Your task to perform on an android device: Open Chrome and go to settings Image 0: 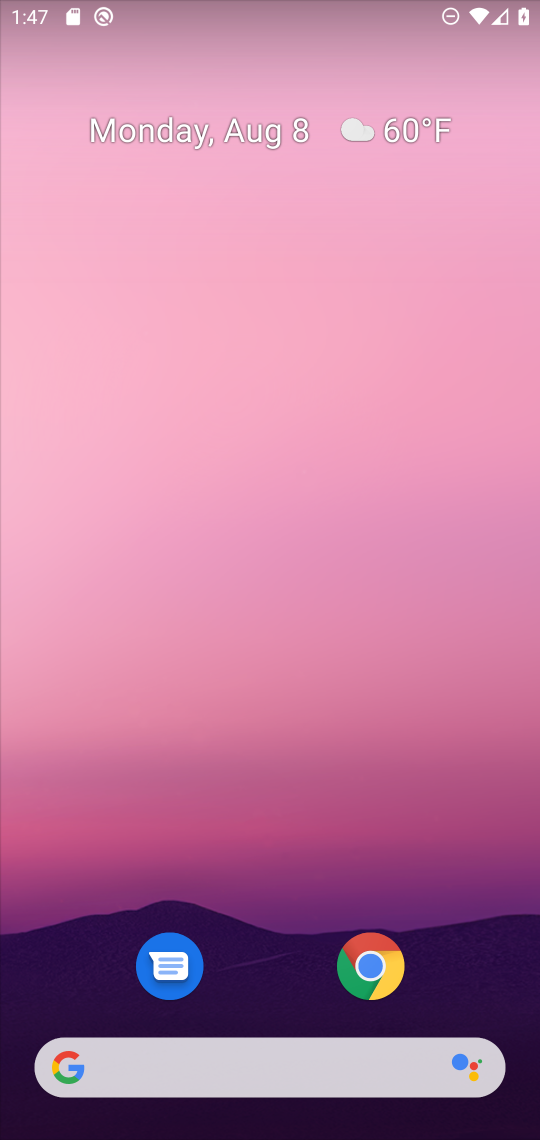
Step 0: click (389, 963)
Your task to perform on an android device: Open Chrome and go to settings Image 1: 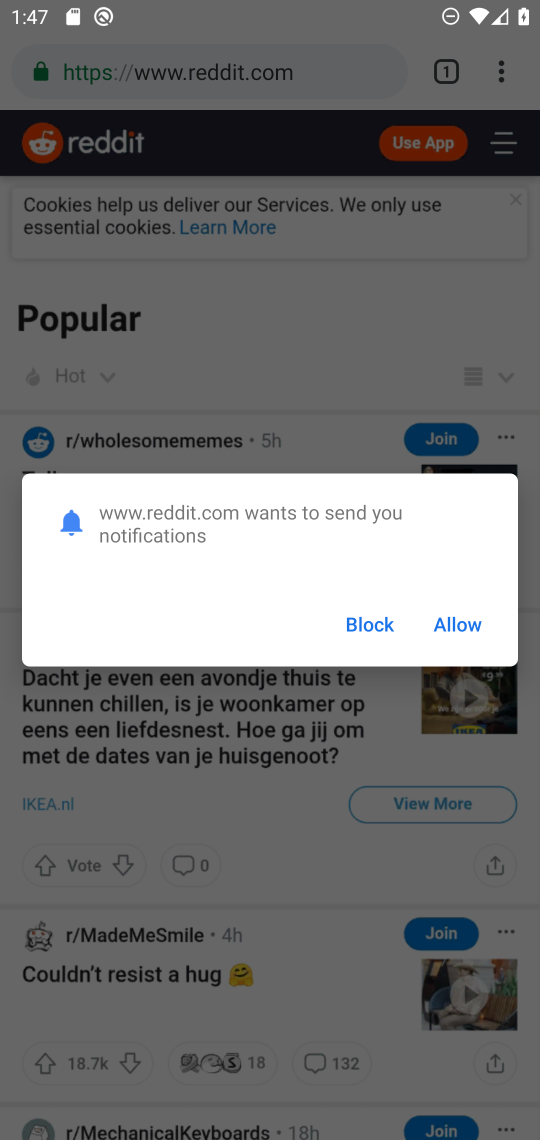
Step 1: click (514, 164)
Your task to perform on an android device: Open Chrome and go to settings Image 2: 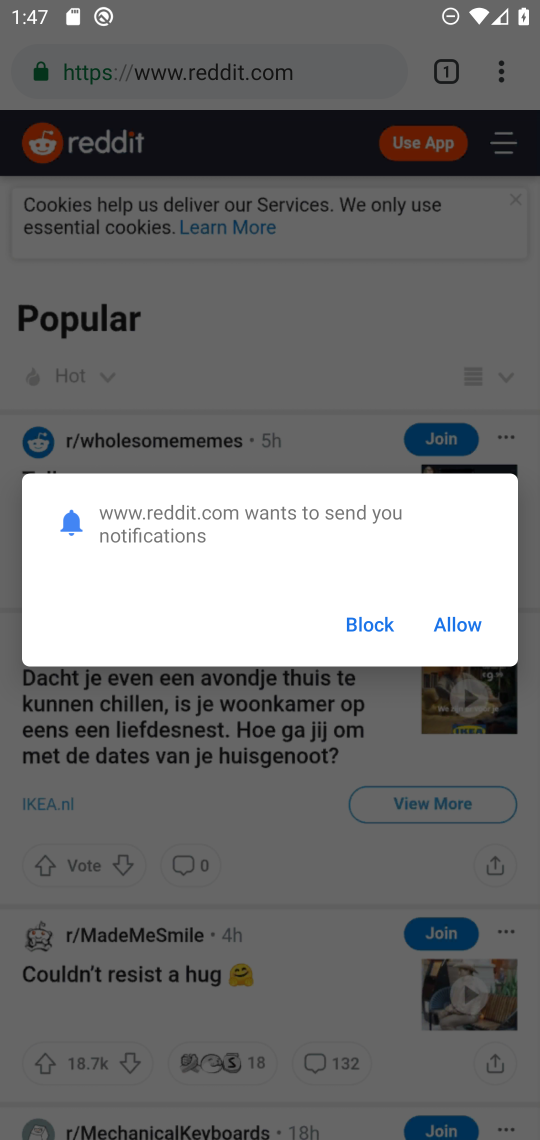
Step 2: click (469, 605)
Your task to perform on an android device: Open Chrome and go to settings Image 3: 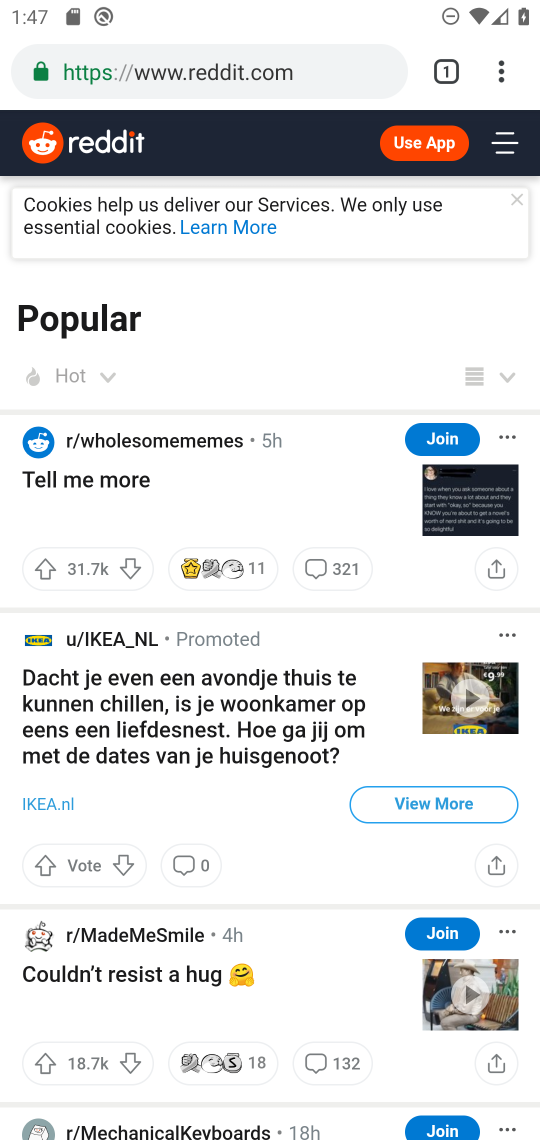
Step 3: click (494, 67)
Your task to perform on an android device: Open Chrome and go to settings Image 4: 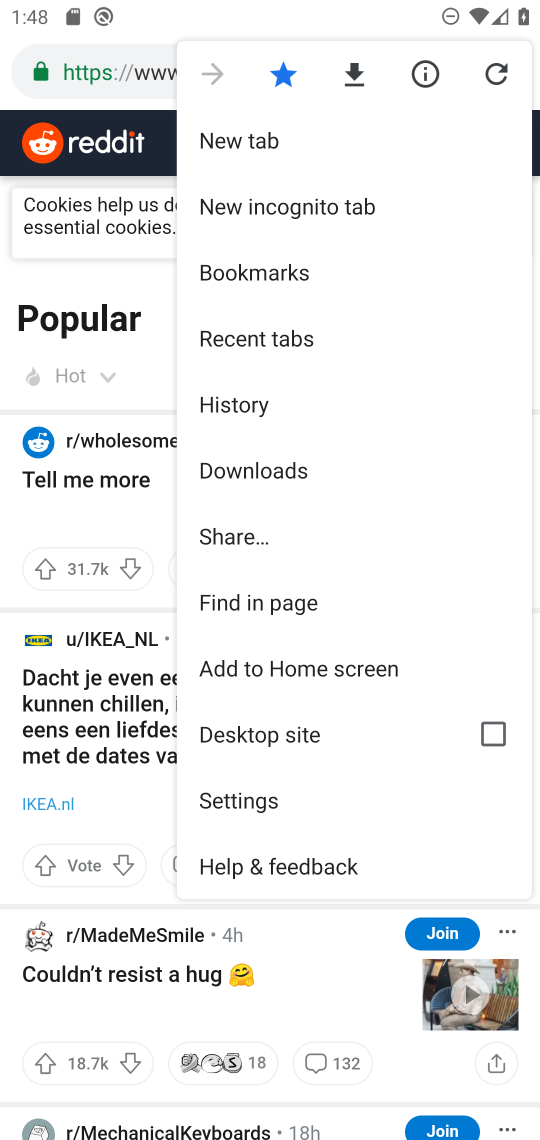
Step 4: click (283, 795)
Your task to perform on an android device: Open Chrome and go to settings Image 5: 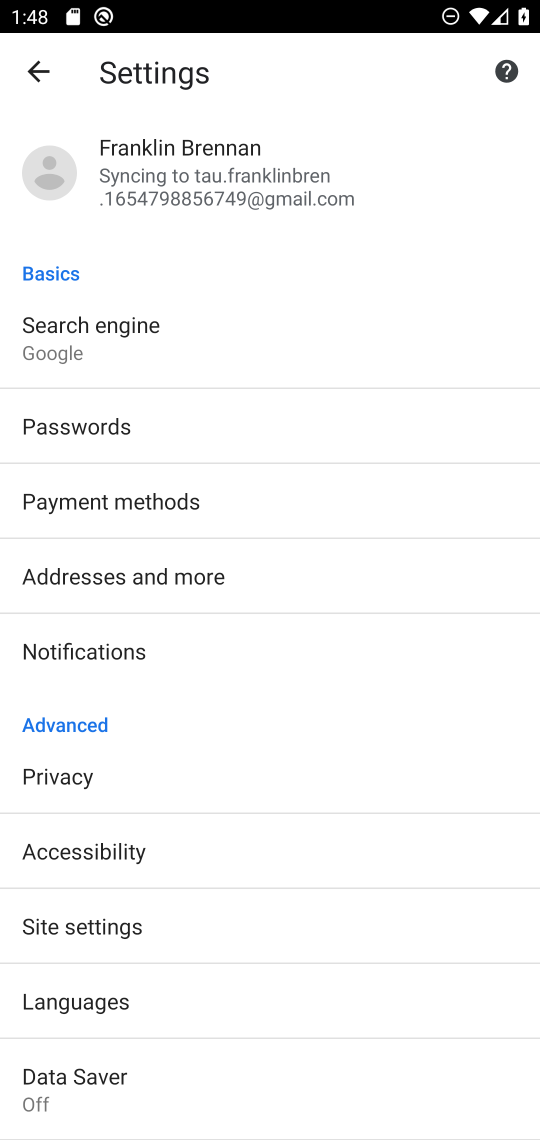
Step 5: task complete